Your task to perform on an android device: Find coffee shops on Maps Image 0: 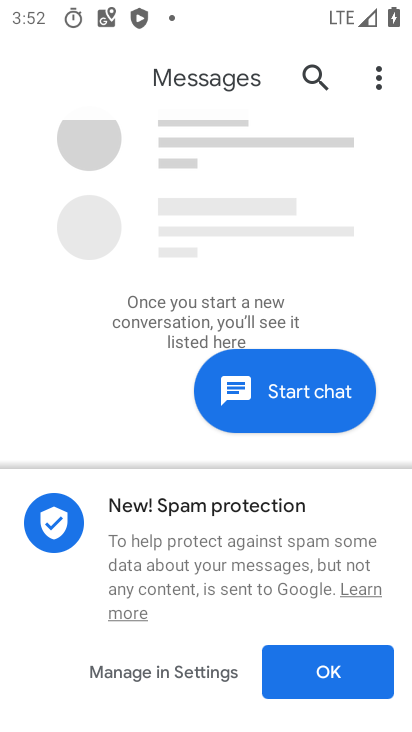
Step 0: press home button
Your task to perform on an android device: Find coffee shops on Maps Image 1: 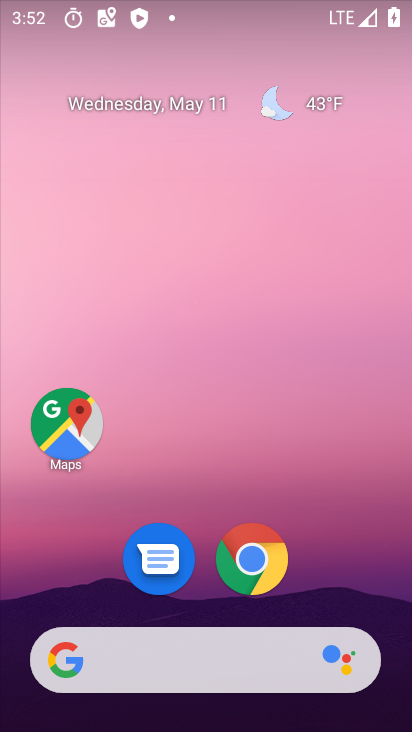
Step 1: click (60, 425)
Your task to perform on an android device: Find coffee shops on Maps Image 2: 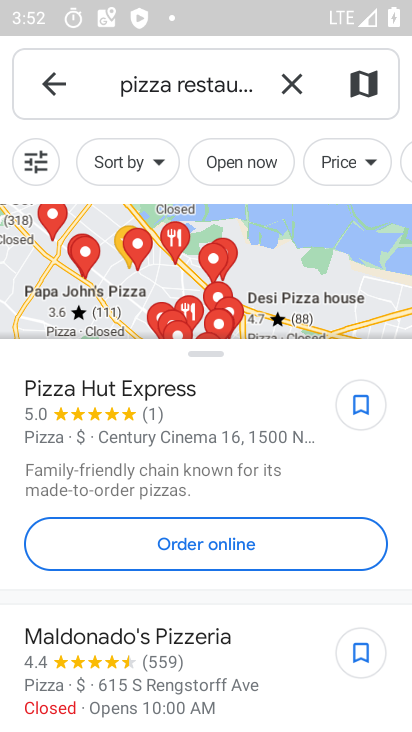
Step 2: click (292, 83)
Your task to perform on an android device: Find coffee shops on Maps Image 3: 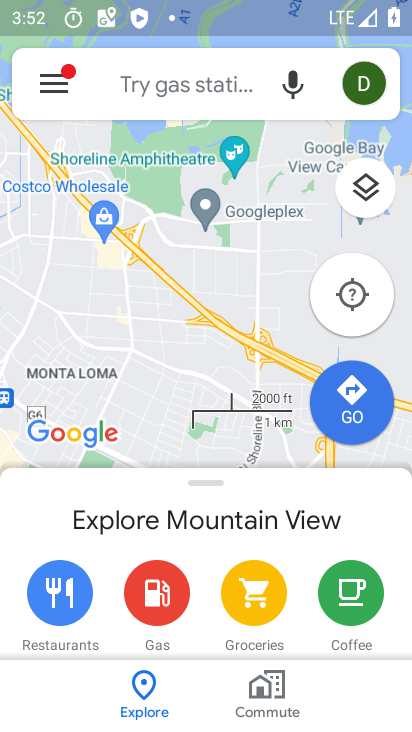
Step 3: click (159, 83)
Your task to perform on an android device: Find coffee shops on Maps Image 4: 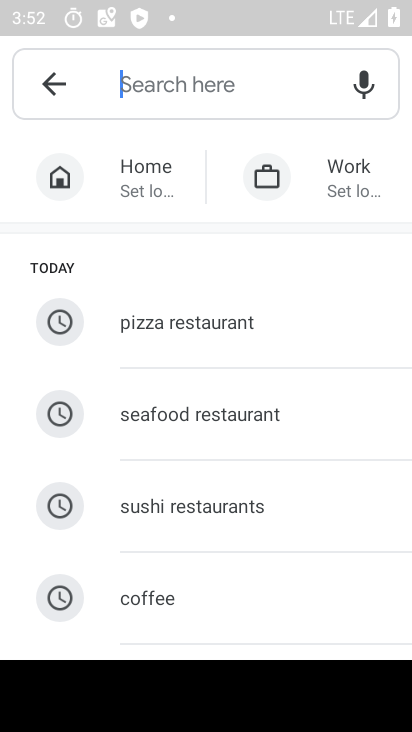
Step 4: click (208, 588)
Your task to perform on an android device: Find coffee shops on Maps Image 5: 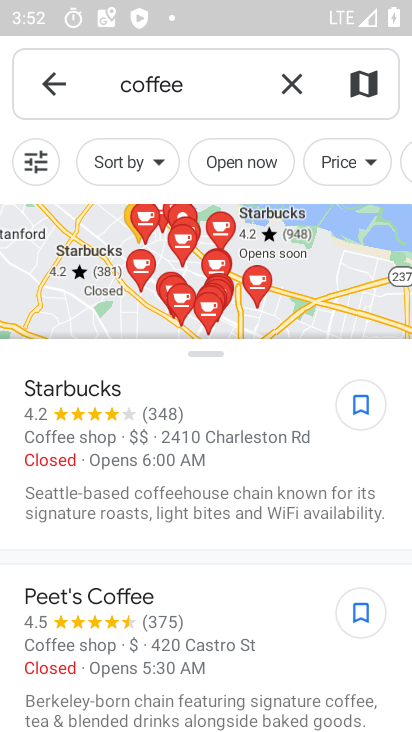
Step 5: task complete